Your task to perform on an android device: clear history in the chrome app Image 0: 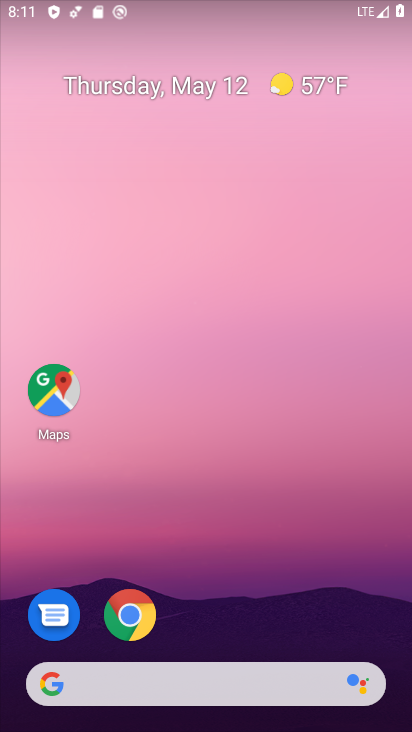
Step 0: drag from (282, 565) to (198, 35)
Your task to perform on an android device: clear history in the chrome app Image 1: 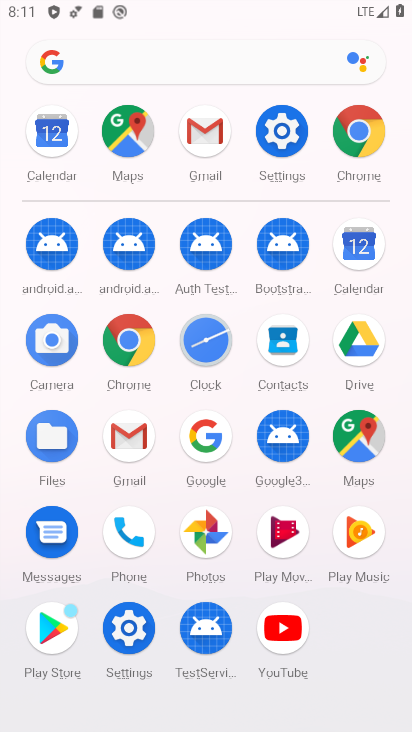
Step 1: drag from (5, 492) to (11, 183)
Your task to perform on an android device: clear history in the chrome app Image 2: 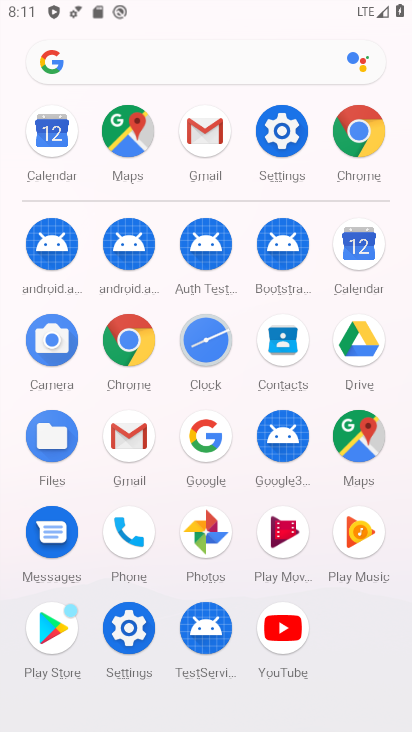
Step 2: click (125, 333)
Your task to perform on an android device: clear history in the chrome app Image 3: 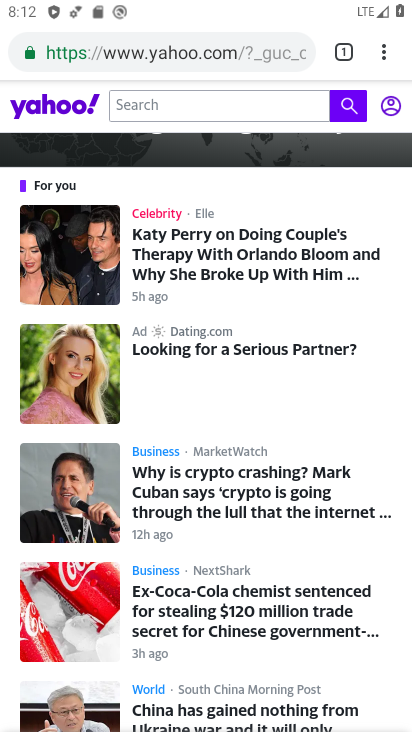
Step 3: drag from (380, 49) to (210, 629)
Your task to perform on an android device: clear history in the chrome app Image 4: 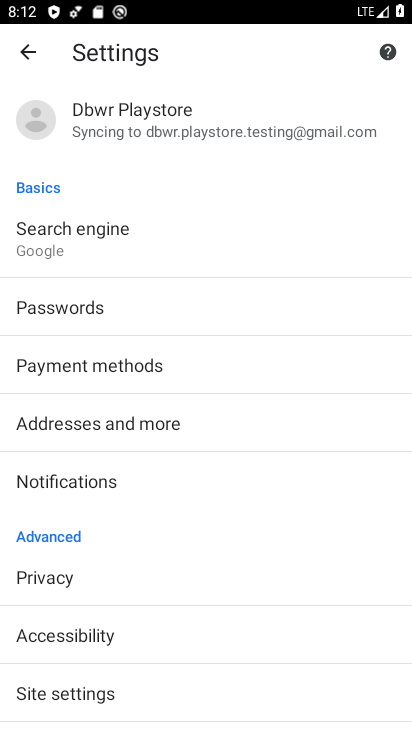
Step 4: click (25, 50)
Your task to perform on an android device: clear history in the chrome app Image 5: 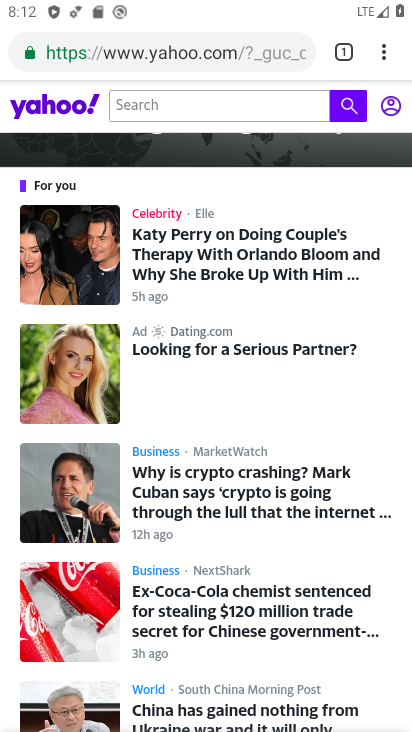
Step 5: task complete